Your task to perform on an android device: change alarm snooze length Image 0: 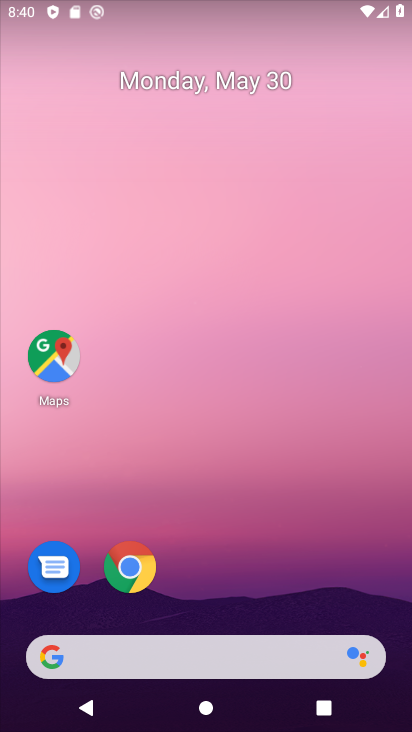
Step 0: drag from (241, 605) to (192, 239)
Your task to perform on an android device: change alarm snooze length Image 1: 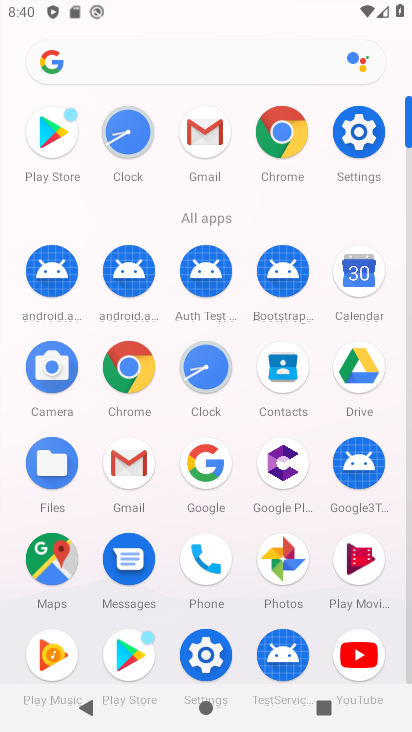
Step 1: click (138, 155)
Your task to perform on an android device: change alarm snooze length Image 2: 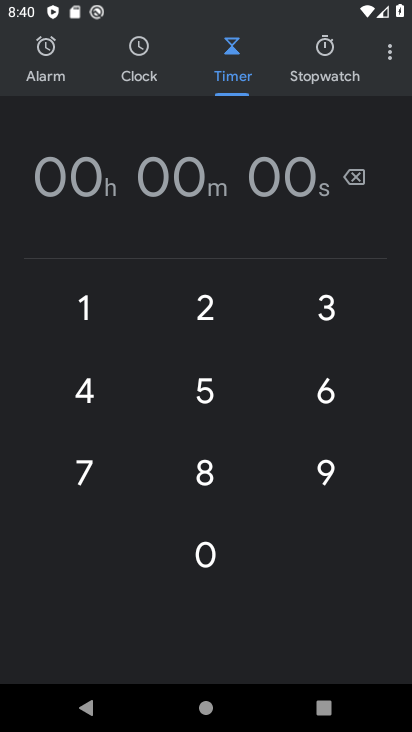
Step 2: click (388, 49)
Your task to perform on an android device: change alarm snooze length Image 3: 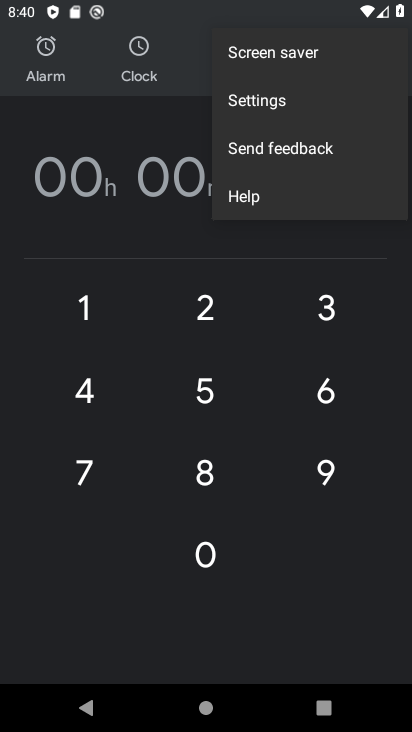
Step 3: click (340, 92)
Your task to perform on an android device: change alarm snooze length Image 4: 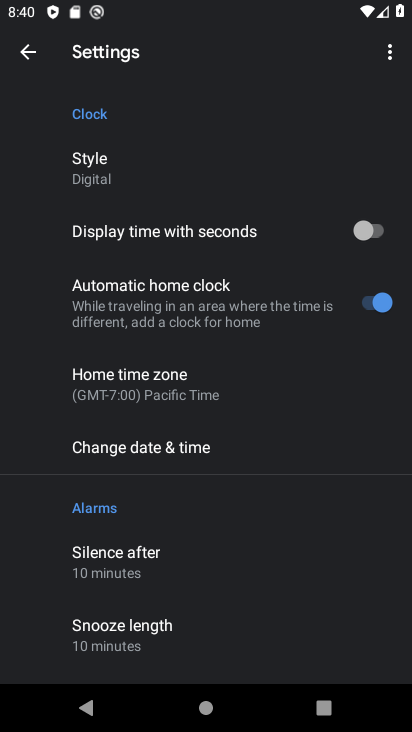
Step 4: drag from (219, 597) to (196, 366)
Your task to perform on an android device: change alarm snooze length Image 5: 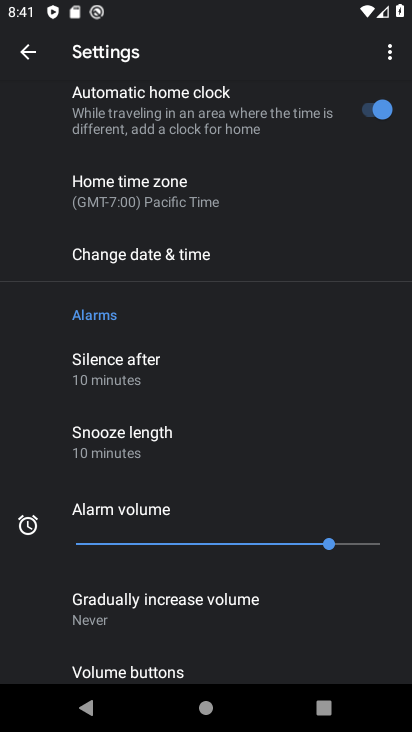
Step 5: click (219, 425)
Your task to perform on an android device: change alarm snooze length Image 6: 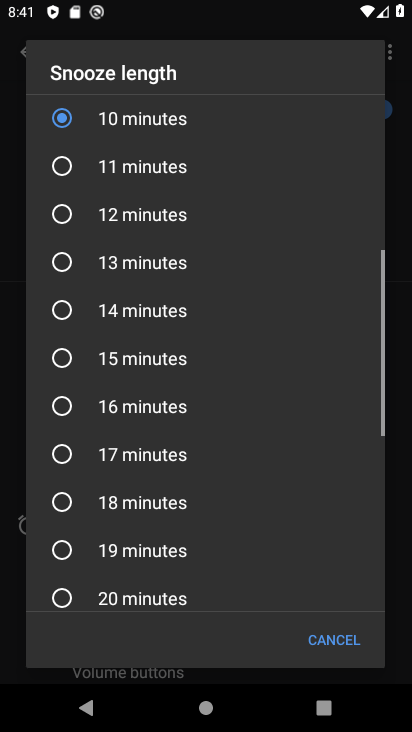
Step 6: click (204, 438)
Your task to perform on an android device: change alarm snooze length Image 7: 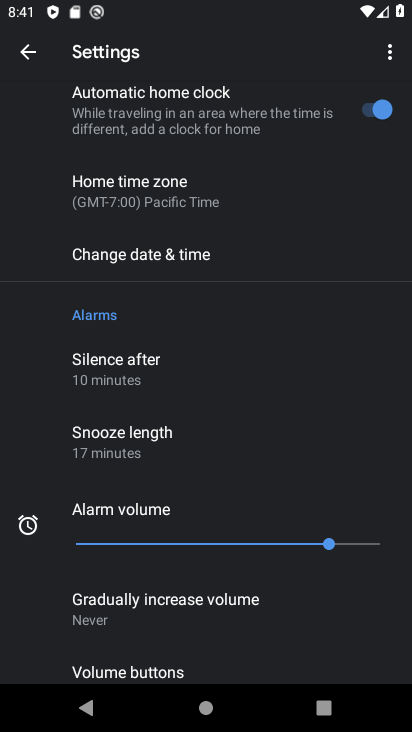
Step 7: task complete